Your task to perform on an android device: empty trash in google photos Image 0: 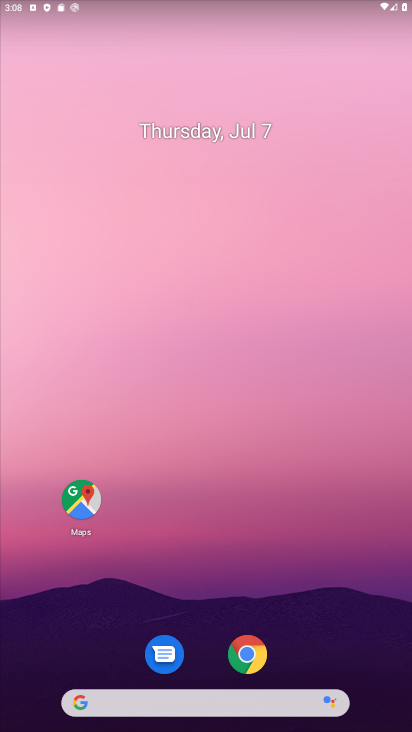
Step 0: drag from (309, 603) to (320, 106)
Your task to perform on an android device: empty trash in google photos Image 1: 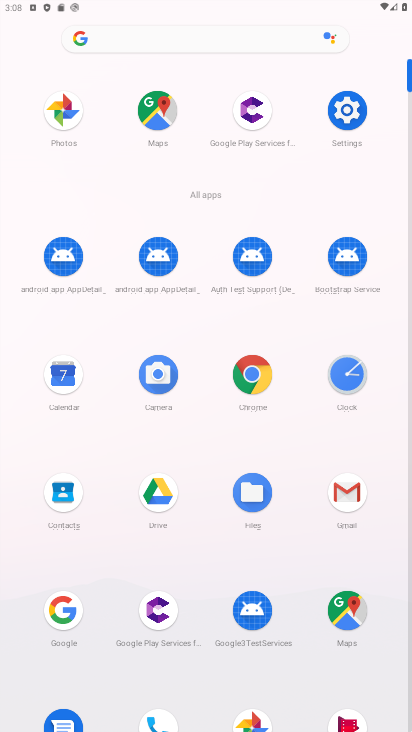
Step 1: drag from (63, 110) to (91, 216)
Your task to perform on an android device: empty trash in google photos Image 2: 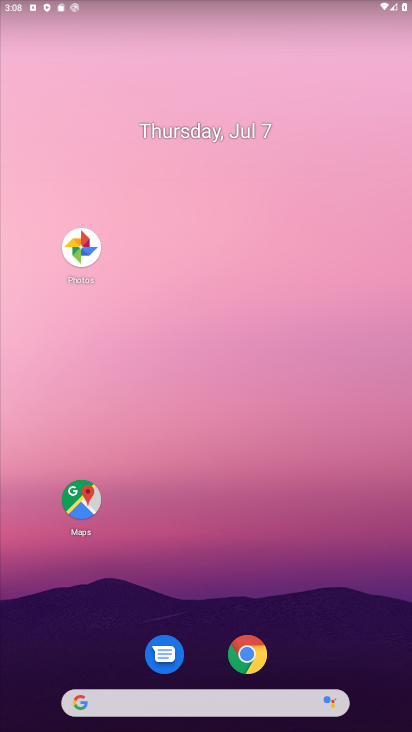
Step 2: click (90, 240)
Your task to perform on an android device: empty trash in google photos Image 3: 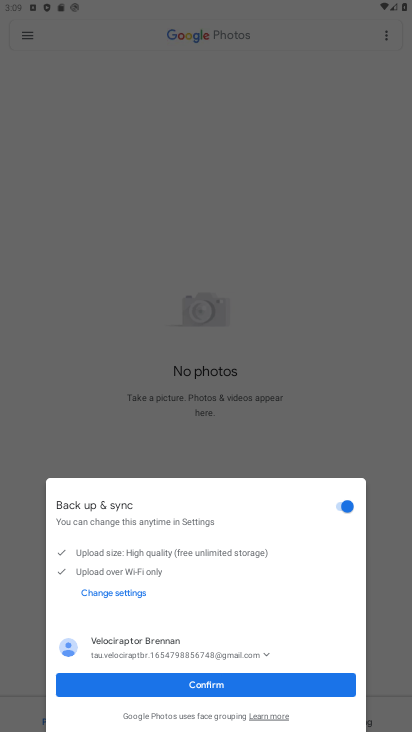
Step 3: press home button
Your task to perform on an android device: empty trash in google photos Image 4: 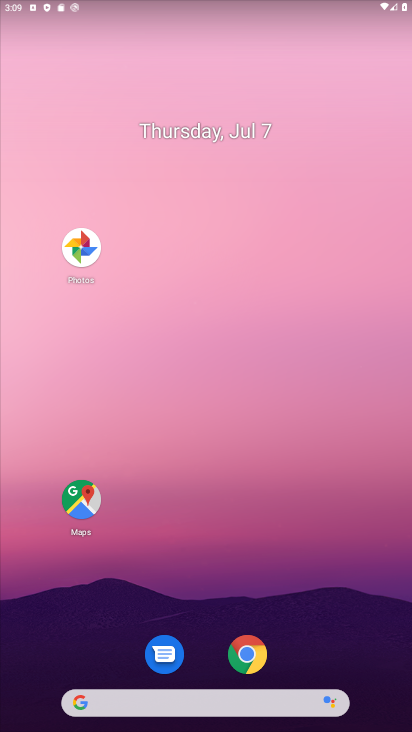
Step 4: click (92, 253)
Your task to perform on an android device: empty trash in google photos Image 5: 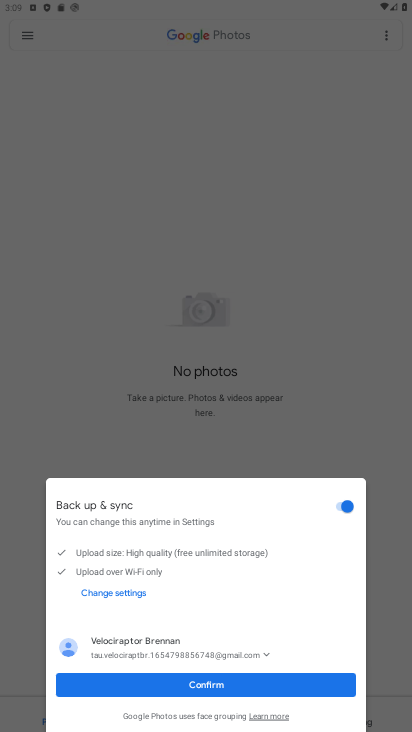
Step 5: click (249, 684)
Your task to perform on an android device: empty trash in google photos Image 6: 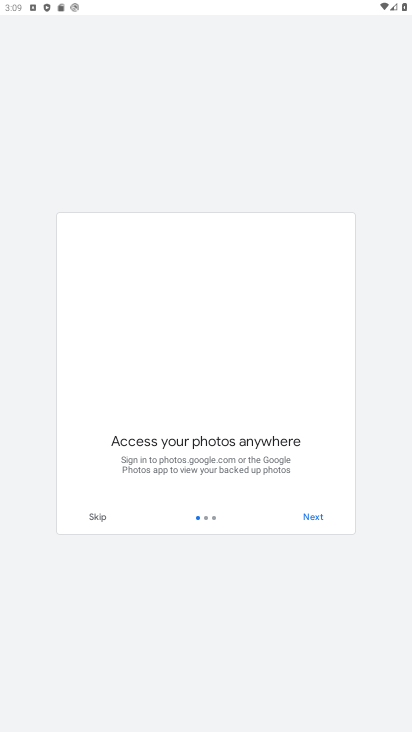
Step 6: click (311, 513)
Your task to perform on an android device: empty trash in google photos Image 7: 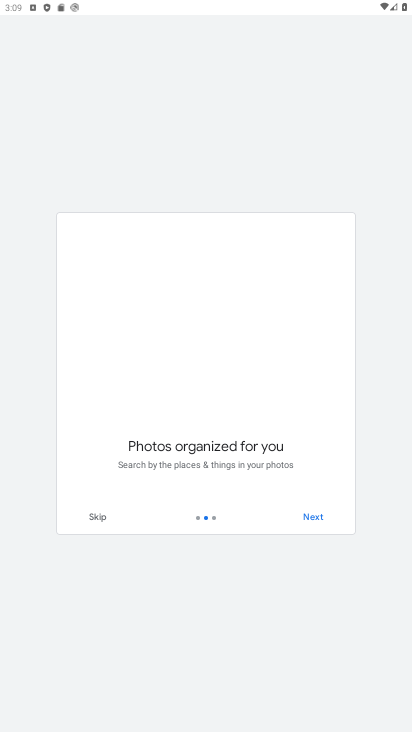
Step 7: click (314, 513)
Your task to perform on an android device: empty trash in google photos Image 8: 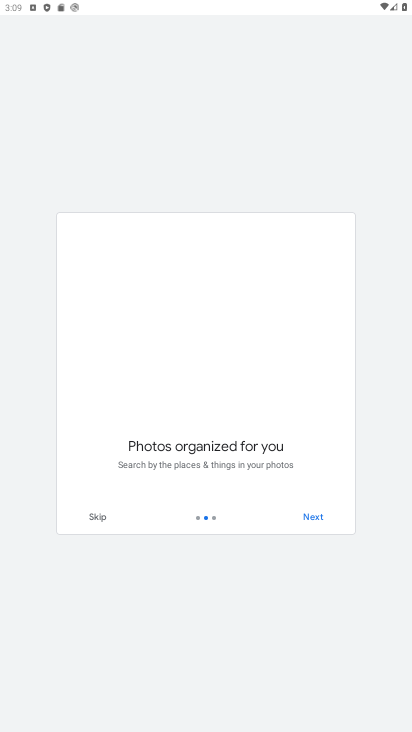
Step 8: click (314, 513)
Your task to perform on an android device: empty trash in google photos Image 9: 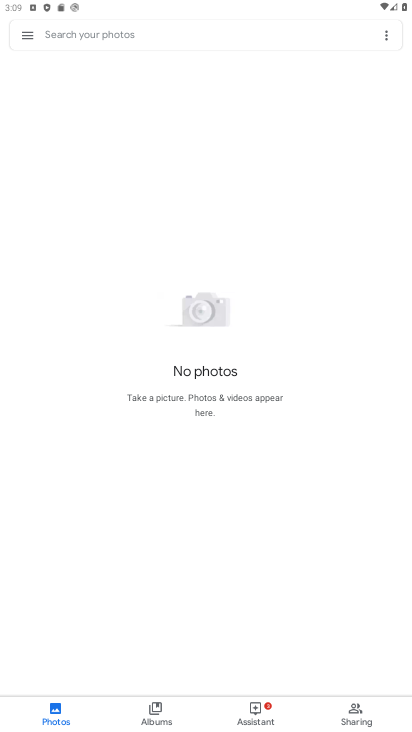
Step 9: click (28, 32)
Your task to perform on an android device: empty trash in google photos Image 10: 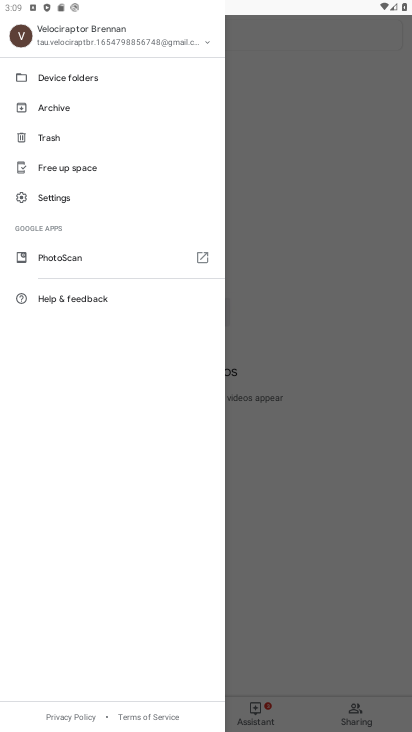
Step 10: click (73, 131)
Your task to perform on an android device: empty trash in google photos Image 11: 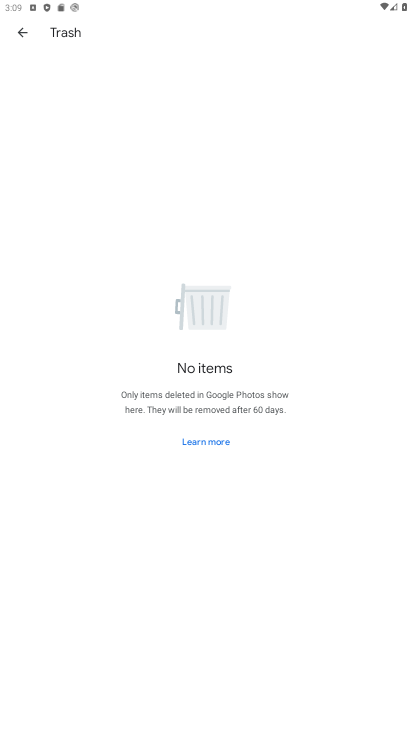
Step 11: task complete